Your task to perform on an android device: Turn on the flashlight Image 0: 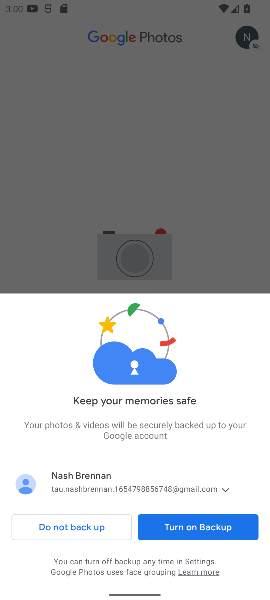
Step 0: press home button
Your task to perform on an android device: Turn on the flashlight Image 1: 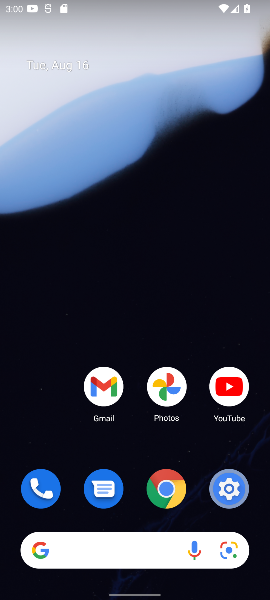
Step 1: task complete